Your task to perform on an android device: Go to eBay Image 0: 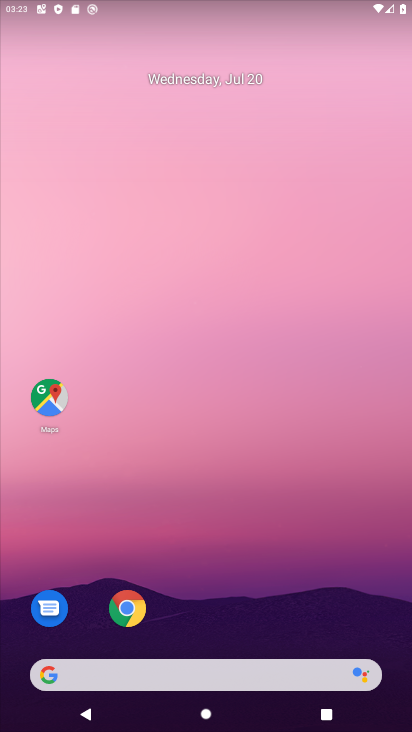
Step 0: click (120, 610)
Your task to perform on an android device: Go to eBay Image 1: 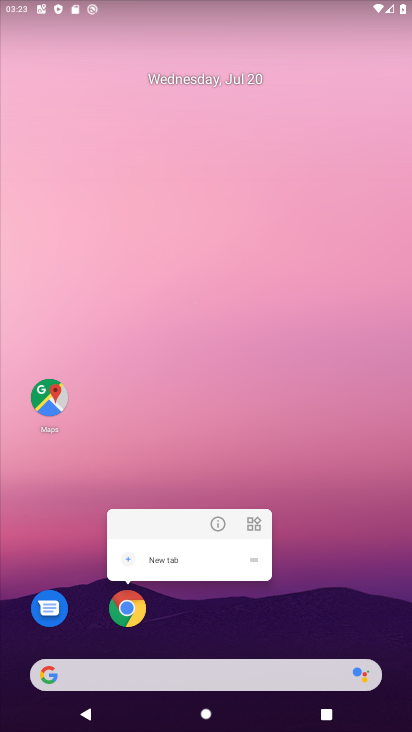
Step 1: click (134, 603)
Your task to perform on an android device: Go to eBay Image 2: 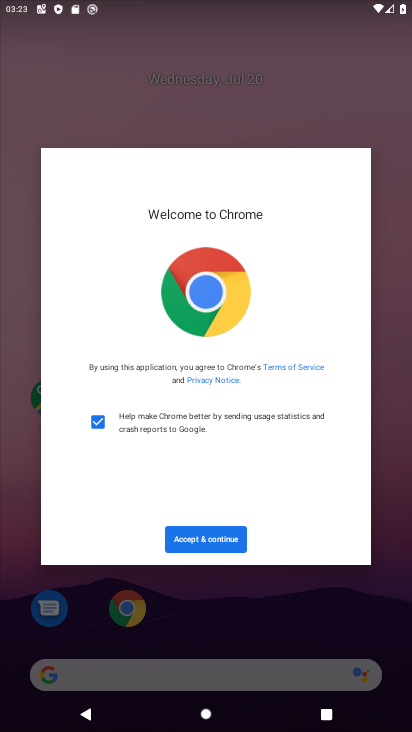
Step 2: click (231, 538)
Your task to perform on an android device: Go to eBay Image 3: 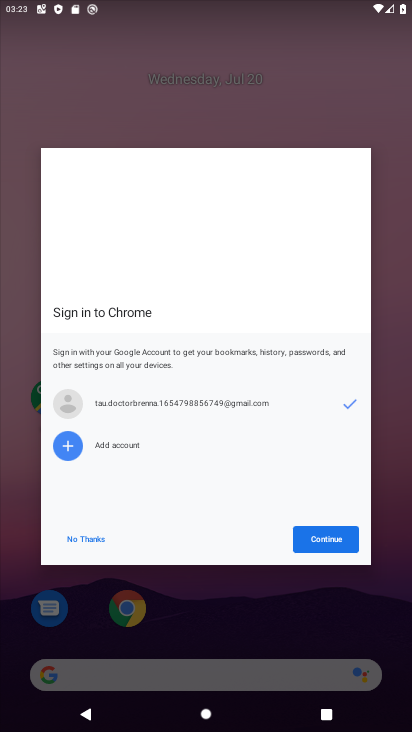
Step 3: click (318, 540)
Your task to perform on an android device: Go to eBay Image 4: 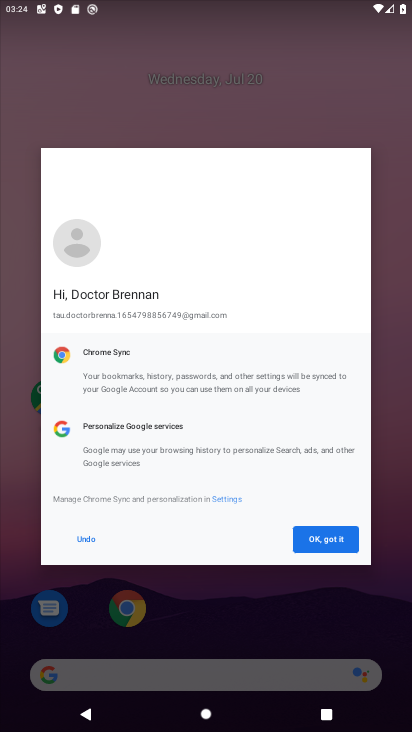
Step 4: click (318, 540)
Your task to perform on an android device: Go to eBay Image 5: 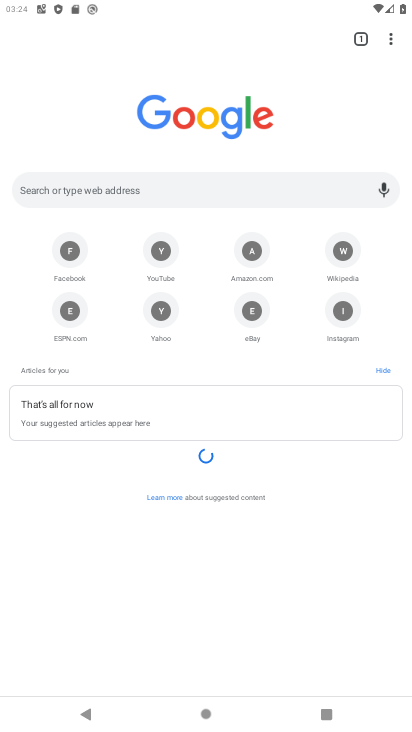
Step 5: click (100, 189)
Your task to perform on an android device: Go to eBay Image 6: 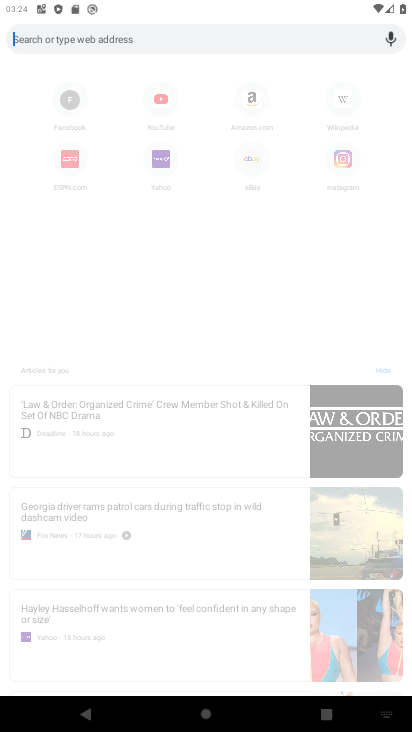
Step 6: type "eBay"
Your task to perform on an android device: Go to eBay Image 7: 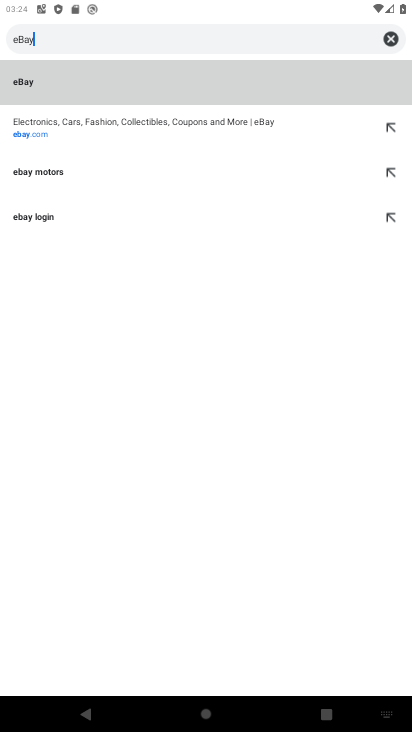
Step 7: click (32, 85)
Your task to perform on an android device: Go to eBay Image 8: 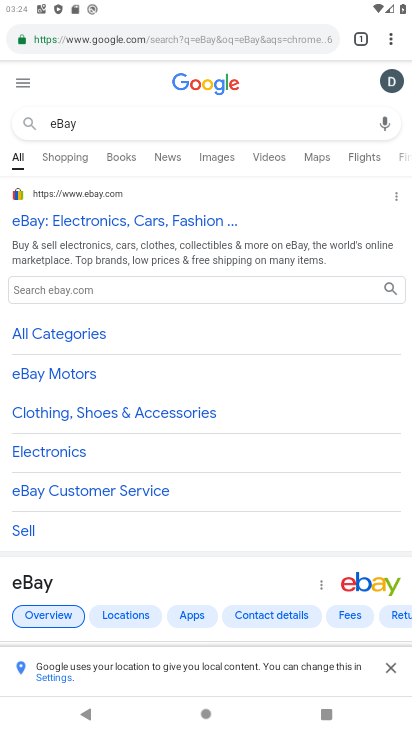
Step 8: task complete